Your task to perform on an android device: Show me productivity apps on the Play Store Image 0: 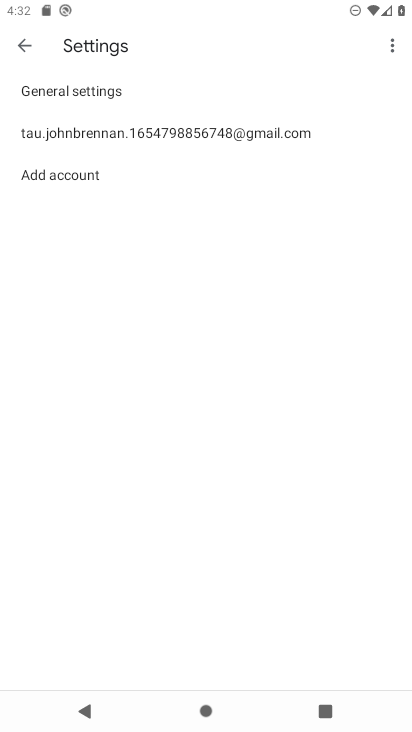
Step 0: press home button
Your task to perform on an android device: Show me productivity apps on the Play Store Image 1: 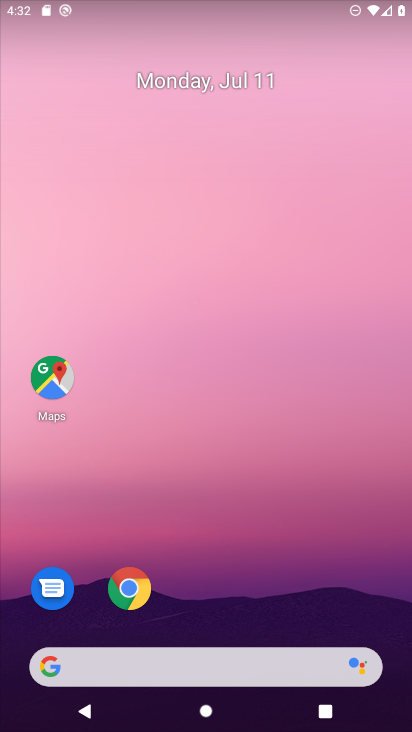
Step 1: drag from (210, 627) to (176, 130)
Your task to perform on an android device: Show me productivity apps on the Play Store Image 2: 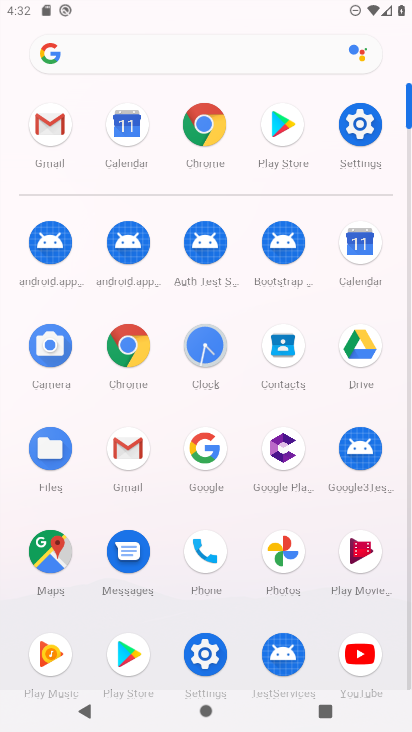
Step 2: click (129, 658)
Your task to perform on an android device: Show me productivity apps on the Play Store Image 3: 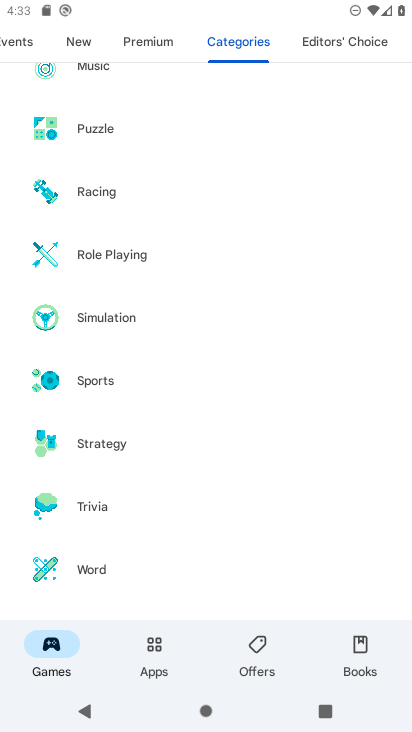
Step 3: click (235, 45)
Your task to perform on an android device: Show me productivity apps on the Play Store Image 4: 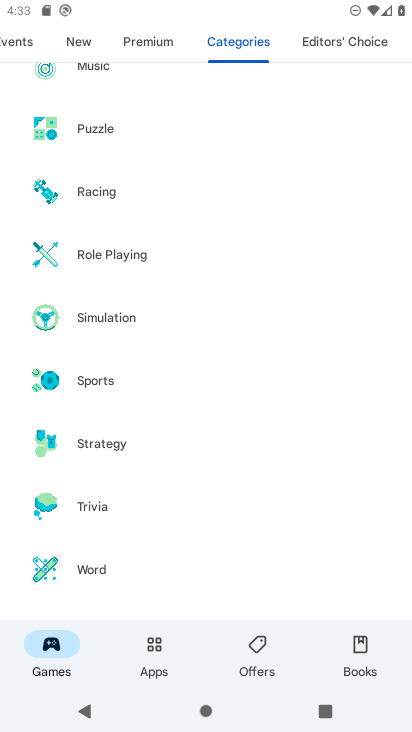
Step 4: click (157, 649)
Your task to perform on an android device: Show me productivity apps on the Play Store Image 5: 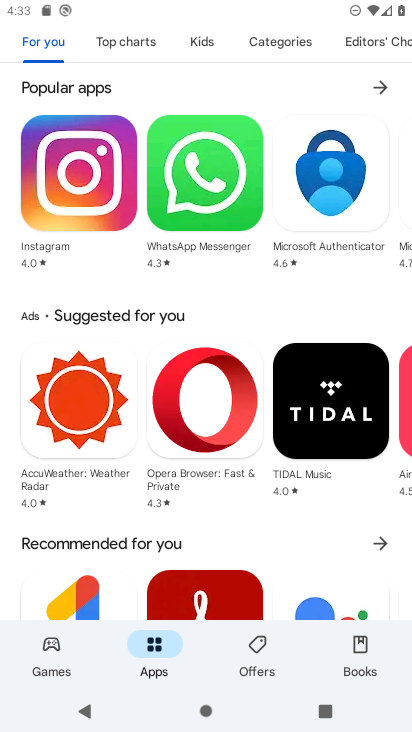
Step 5: click (282, 37)
Your task to perform on an android device: Show me productivity apps on the Play Store Image 6: 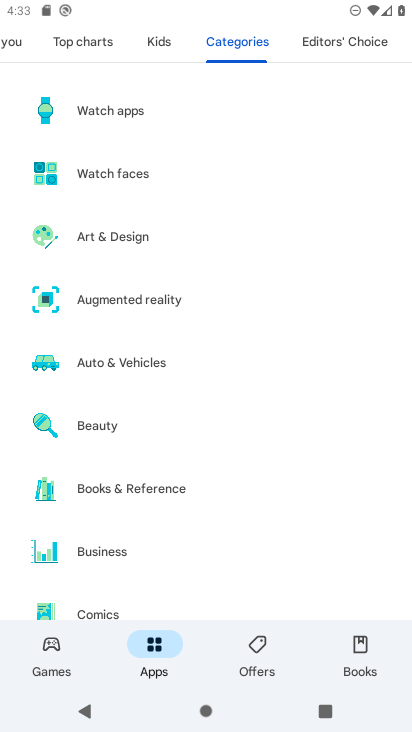
Step 6: drag from (259, 536) to (232, 90)
Your task to perform on an android device: Show me productivity apps on the Play Store Image 7: 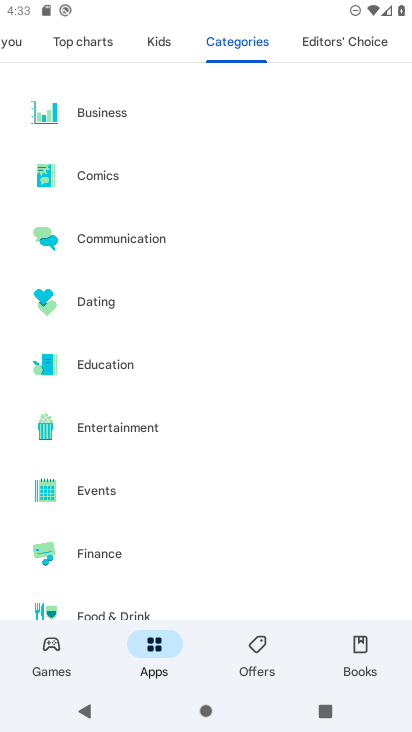
Step 7: drag from (226, 558) to (224, 251)
Your task to perform on an android device: Show me productivity apps on the Play Store Image 8: 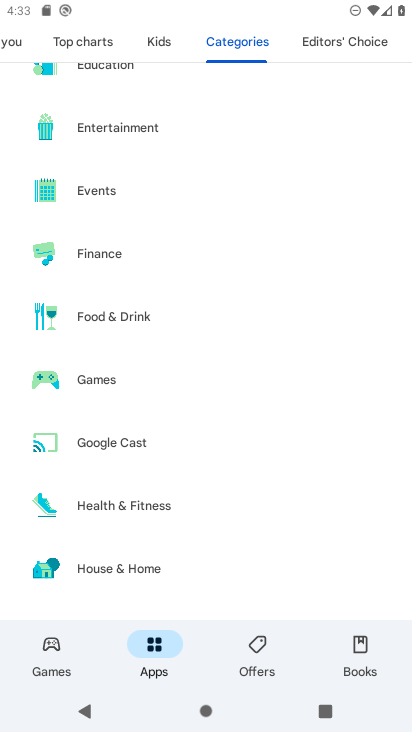
Step 8: drag from (255, 551) to (297, 2)
Your task to perform on an android device: Show me productivity apps on the Play Store Image 9: 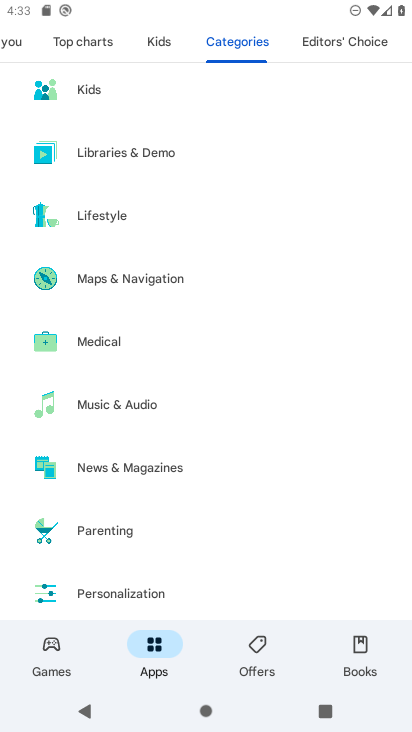
Step 9: drag from (308, 482) to (332, 202)
Your task to perform on an android device: Show me productivity apps on the Play Store Image 10: 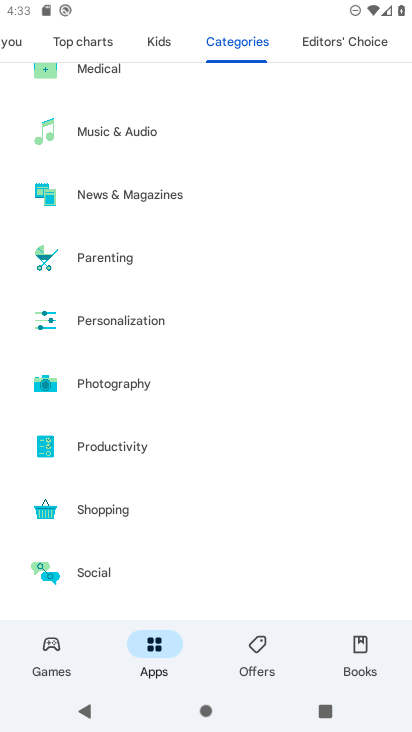
Step 10: click (102, 449)
Your task to perform on an android device: Show me productivity apps on the Play Store Image 11: 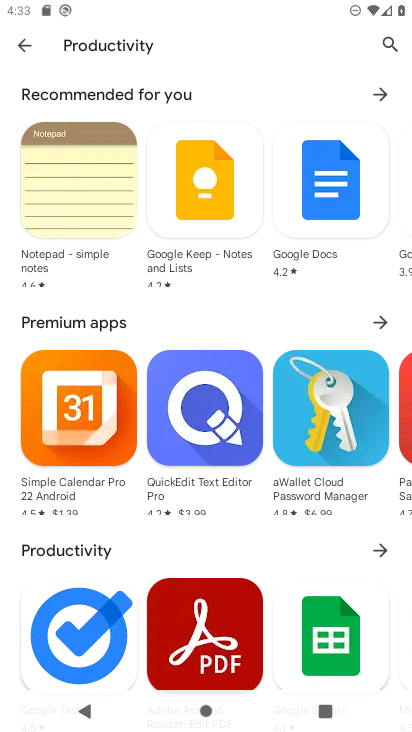
Step 11: task complete